Your task to perform on an android device: toggle sleep mode Image 0: 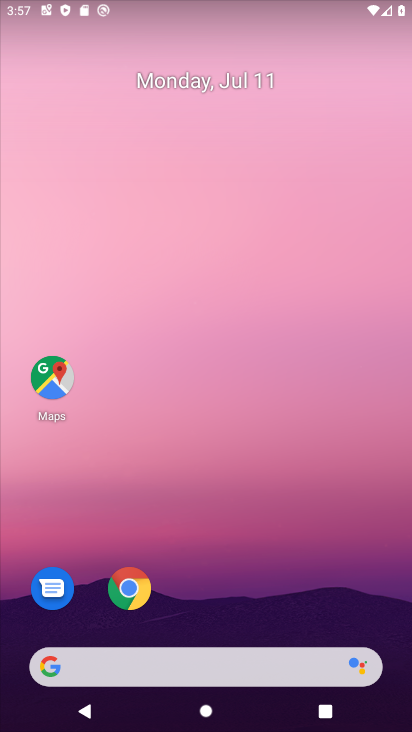
Step 0: drag from (325, 593) to (318, 145)
Your task to perform on an android device: toggle sleep mode Image 1: 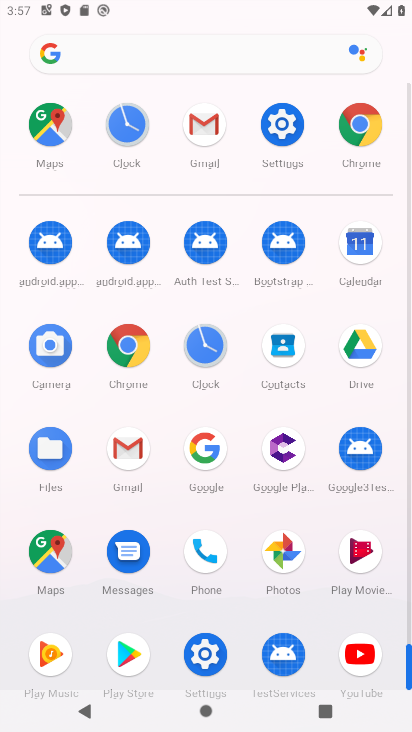
Step 1: click (288, 134)
Your task to perform on an android device: toggle sleep mode Image 2: 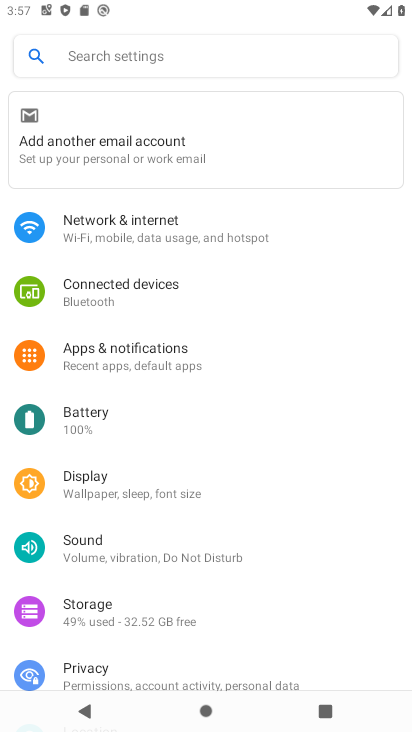
Step 2: drag from (329, 407) to (329, 303)
Your task to perform on an android device: toggle sleep mode Image 3: 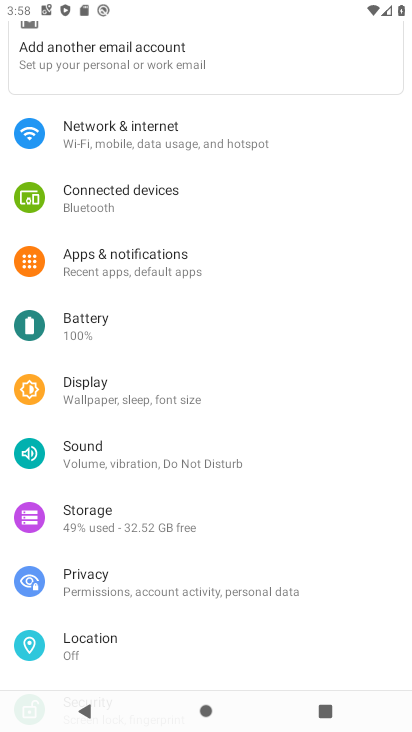
Step 3: drag from (352, 466) to (340, 349)
Your task to perform on an android device: toggle sleep mode Image 4: 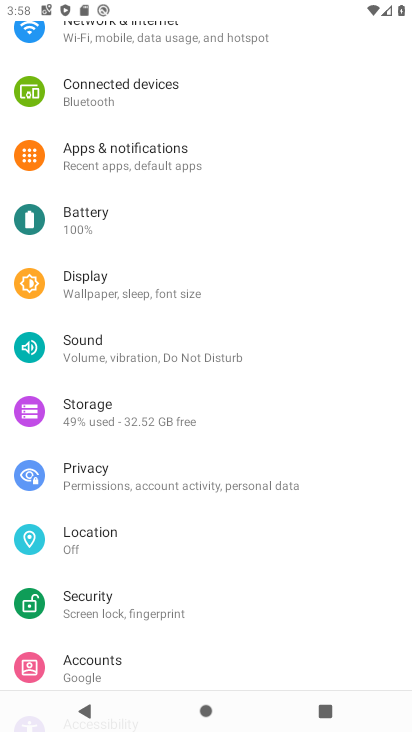
Step 4: drag from (335, 523) to (327, 421)
Your task to perform on an android device: toggle sleep mode Image 5: 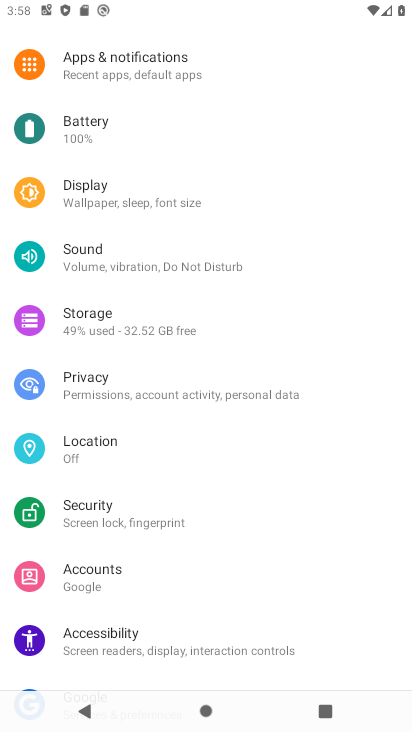
Step 5: drag from (339, 501) to (348, 397)
Your task to perform on an android device: toggle sleep mode Image 6: 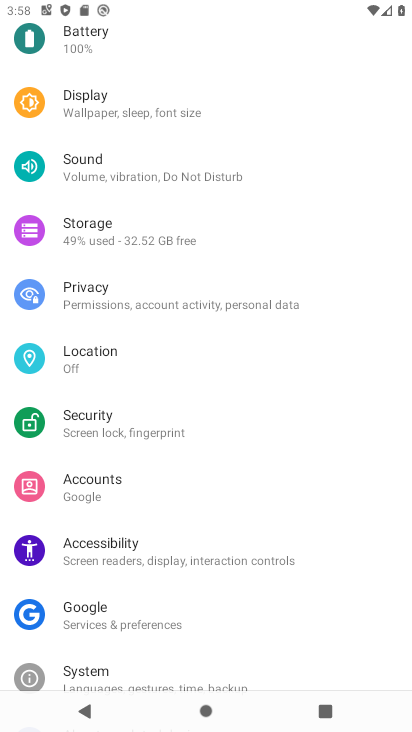
Step 6: drag from (349, 570) to (363, 414)
Your task to perform on an android device: toggle sleep mode Image 7: 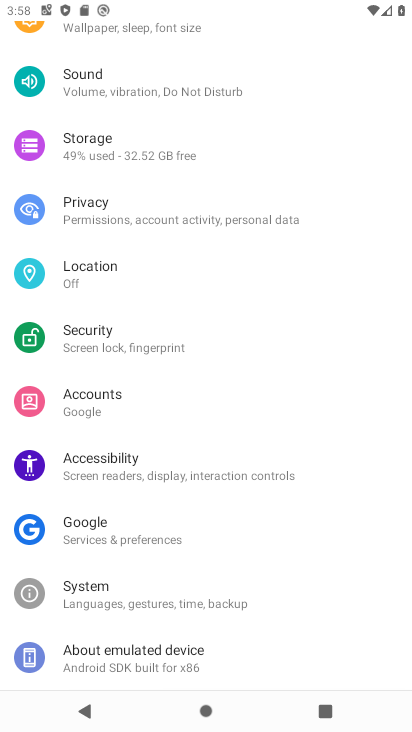
Step 7: drag from (343, 316) to (356, 413)
Your task to perform on an android device: toggle sleep mode Image 8: 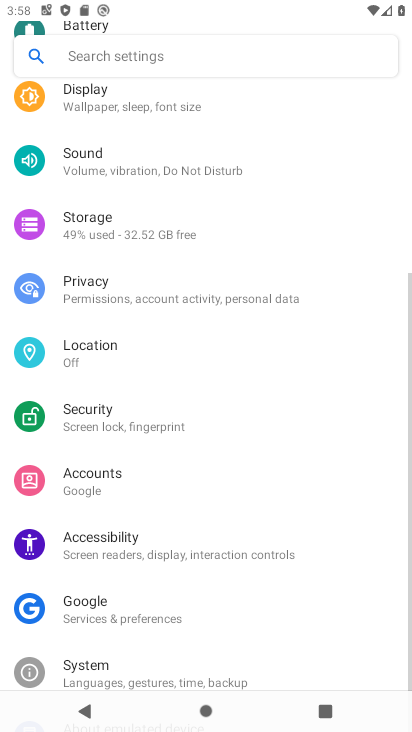
Step 8: drag from (340, 287) to (329, 407)
Your task to perform on an android device: toggle sleep mode Image 9: 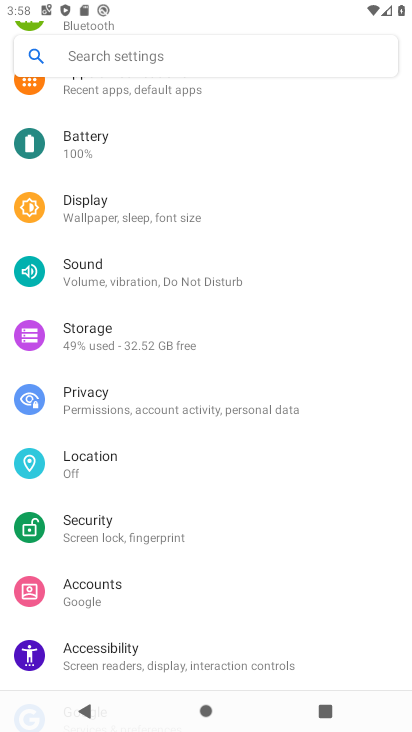
Step 9: drag from (336, 271) to (343, 428)
Your task to perform on an android device: toggle sleep mode Image 10: 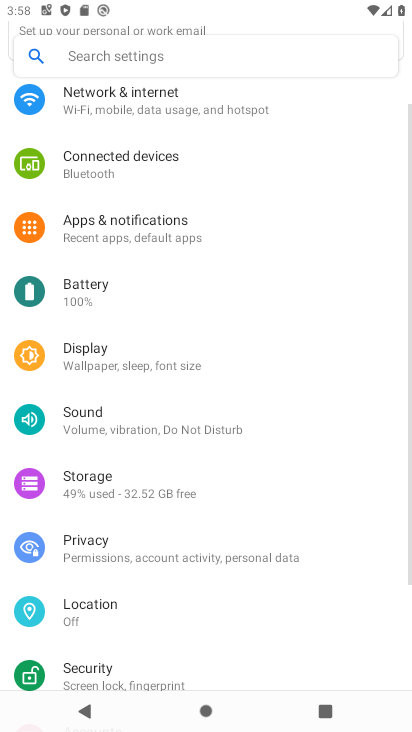
Step 10: drag from (327, 260) to (342, 472)
Your task to perform on an android device: toggle sleep mode Image 11: 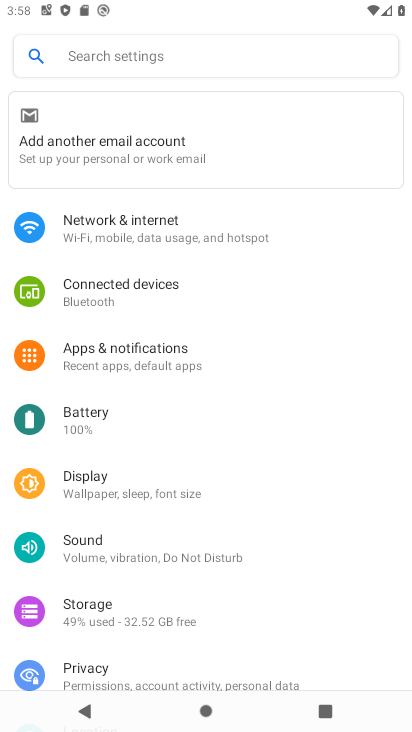
Step 11: click (193, 498)
Your task to perform on an android device: toggle sleep mode Image 12: 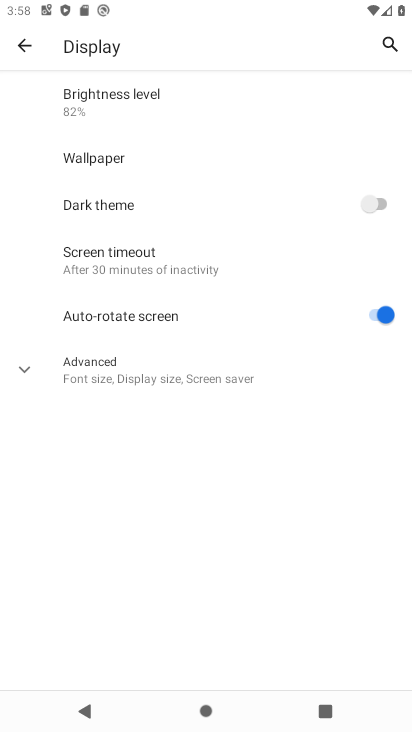
Step 12: click (195, 371)
Your task to perform on an android device: toggle sleep mode Image 13: 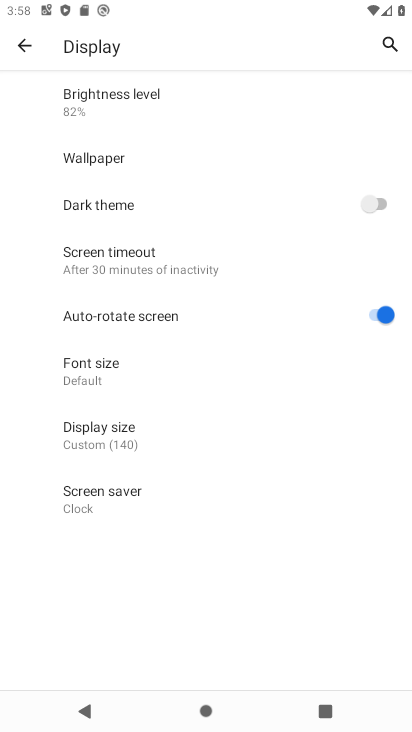
Step 13: task complete